Your task to perform on an android device: find which apps use the phone's location Image 0: 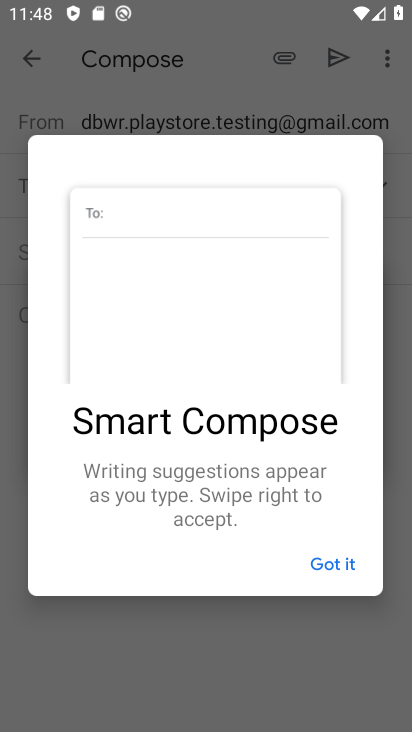
Step 0: press back button
Your task to perform on an android device: find which apps use the phone's location Image 1: 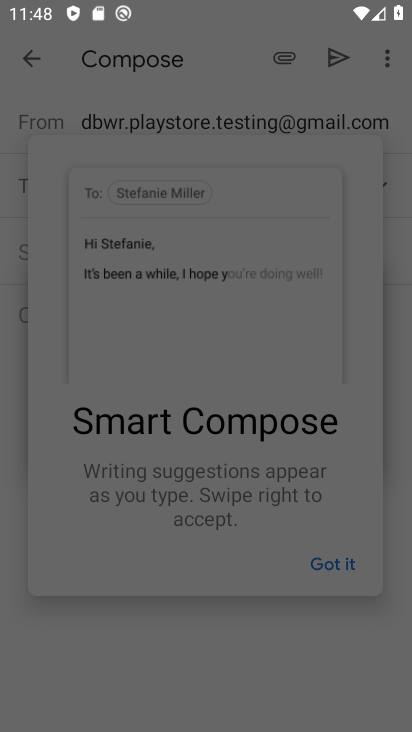
Step 1: press back button
Your task to perform on an android device: find which apps use the phone's location Image 2: 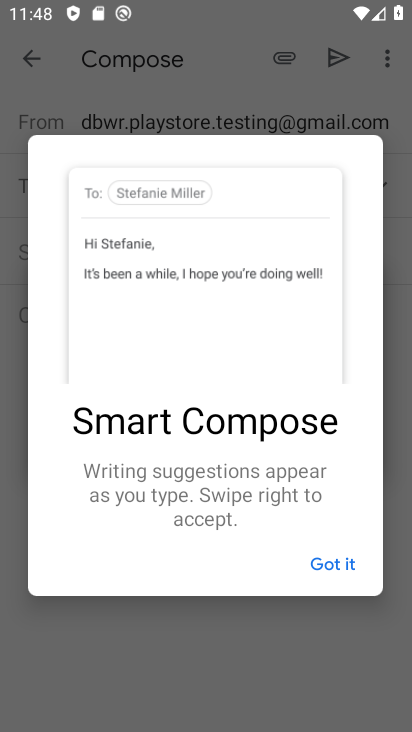
Step 2: press home button
Your task to perform on an android device: find which apps use the phone's location Image 3: 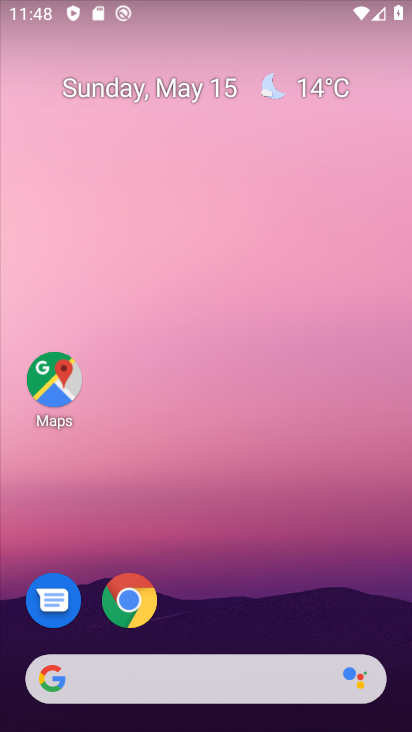
Step 3: drag from (185, 541) to (197, 0)
Your task to perform on an android device: find which apps use the phone's location Image 4: 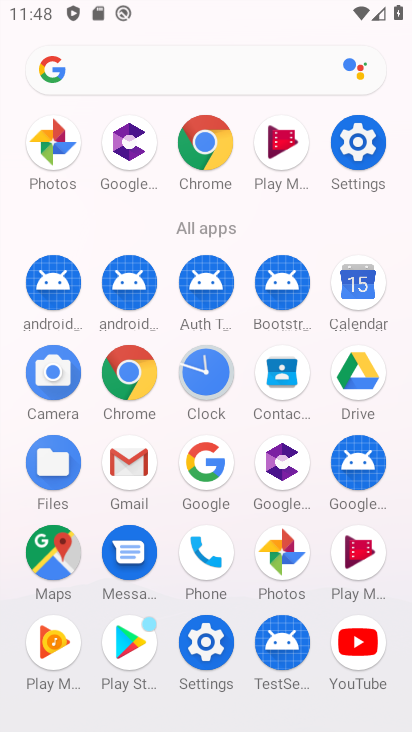
Step 4: drag from (12, 515) to (20, 286)
Your task to perform on an android device: find which apps use the phone's location Image 5: 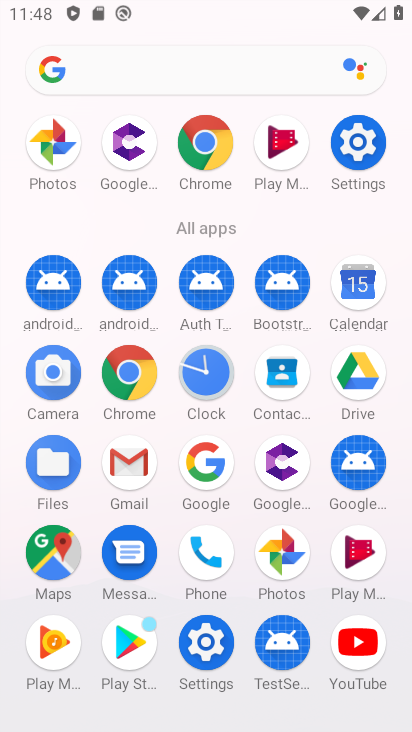
Step 5: click (207, 643)
Your task to perform on an android device: find which apps use the phone's location Image 6: 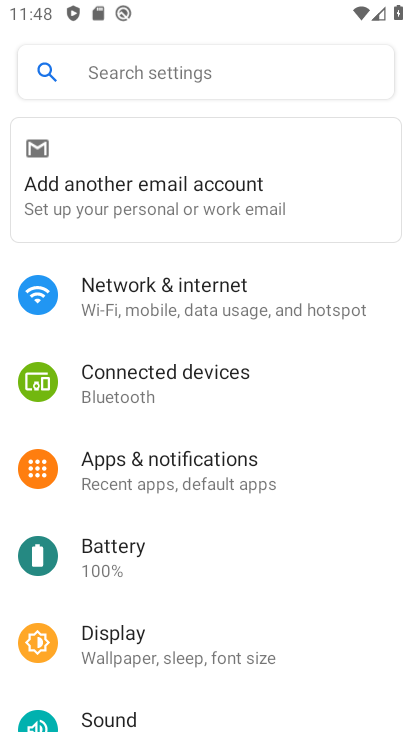
Step 6: drag from (225, 573) to (248, 188)
Your task to perform on an android device: find which apps use the phone's location Image 7: 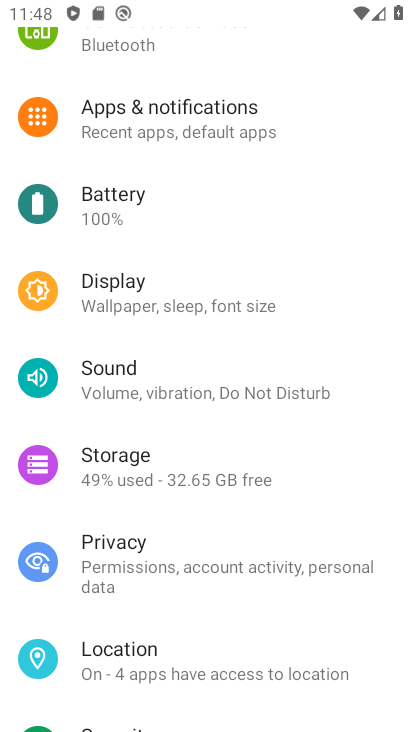
Step 7: click (172, 651)
Your task to perform on an android device: find which apps use the phone's location Image 8: 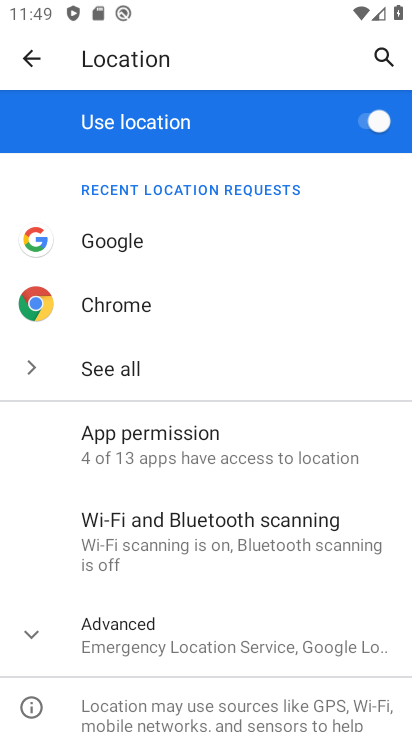
Step 8: click (158, 426)
Your task to perform on an android device: find which apps use the phone's location Image 9: 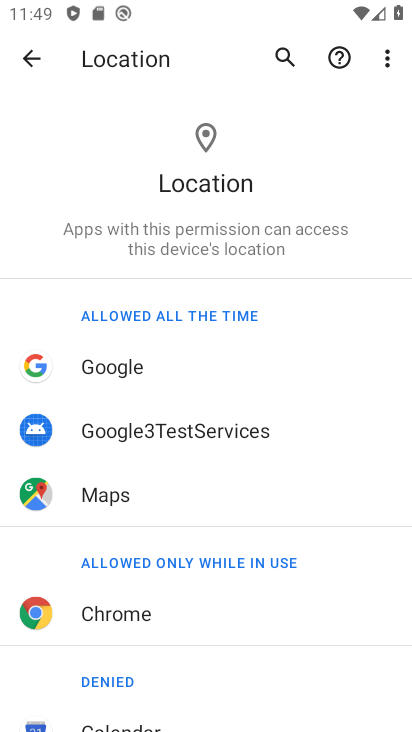
Step 9: task complete